Your task to perform on an android device: search for starred emails in the gmail app Image 0: 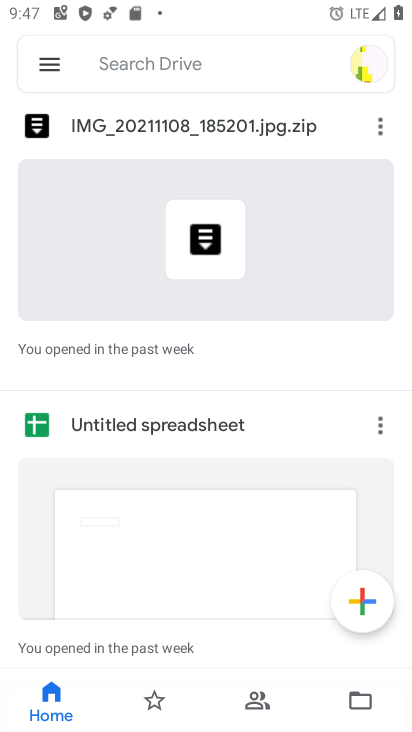
Step 0: press home button
Your task to perform on an android device: search for starred emails in the gmail app Image 1: 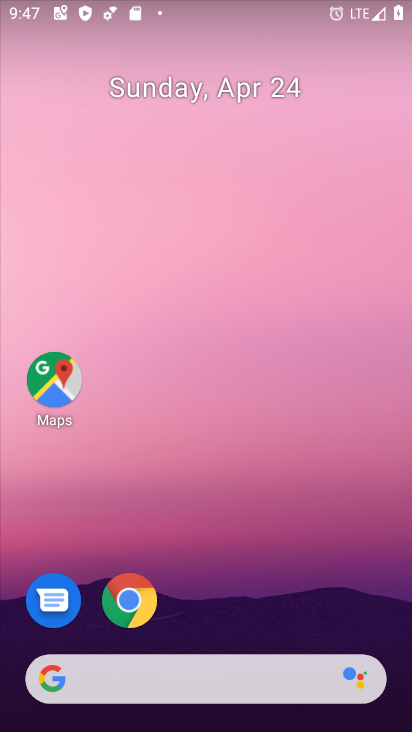
Step 1: drag from (209, 605) to (299, 48)
Your task to perform on an android device: search for starred emails in the gmail app Image 2: 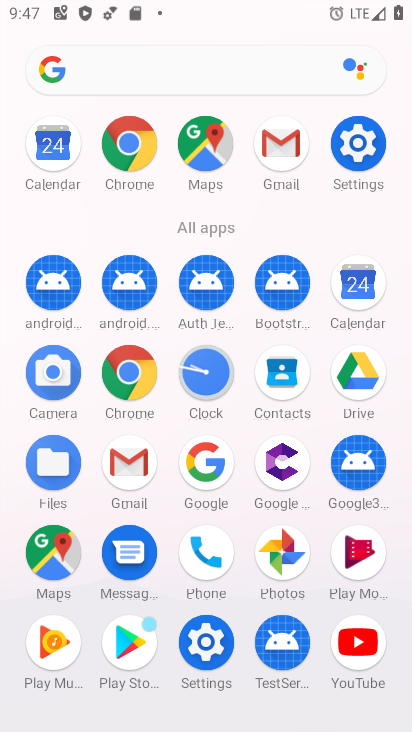
Step 2: click (125, 464)
Your task to perform on an android device: search for starred emails in the gmail app Image 3: 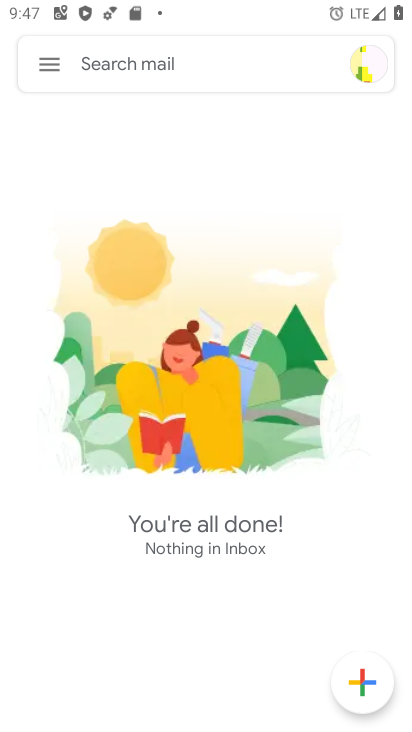
Step 3: click (34, 62)
Your task to perform on an android device: search for starred emails in the gmail app Image 4: 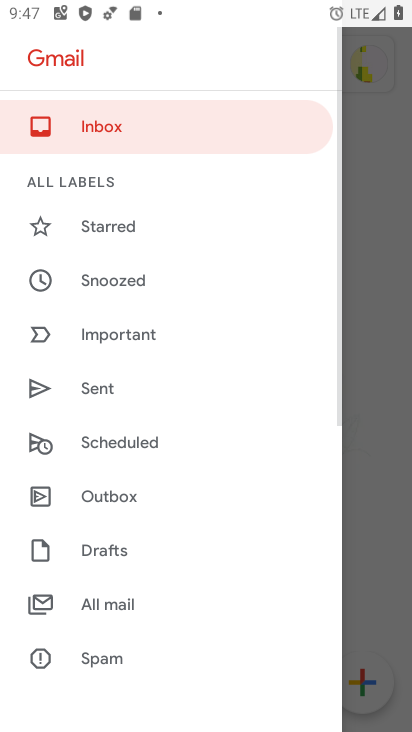
Step 4: click (121, 231)
Your task to perform on an android device: search for starred emails in the gmail app Image 5: 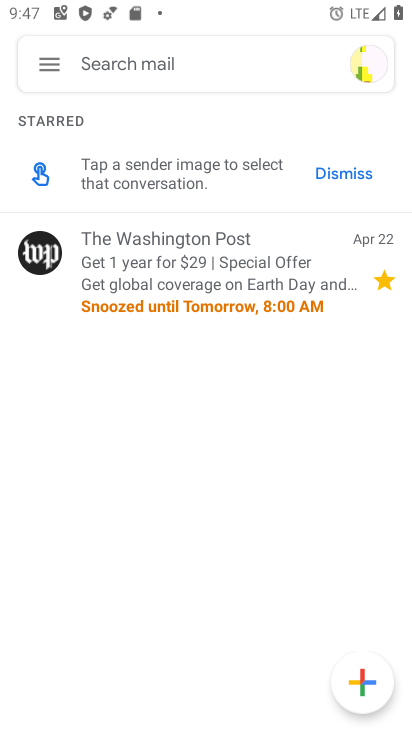
Step 5: click (34, 67)
Your task to perform on an android device: search for starred emails in the gmail app Image 6: 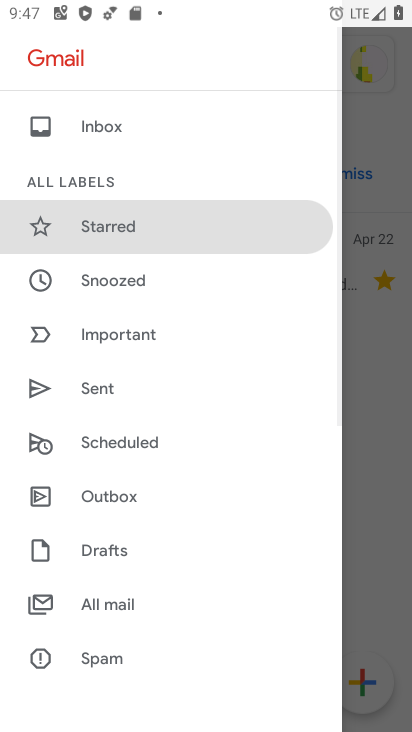
Step 6: click (173, 227)
Your task to perform on an android device: search for starred emails in the gmail app Image 7: 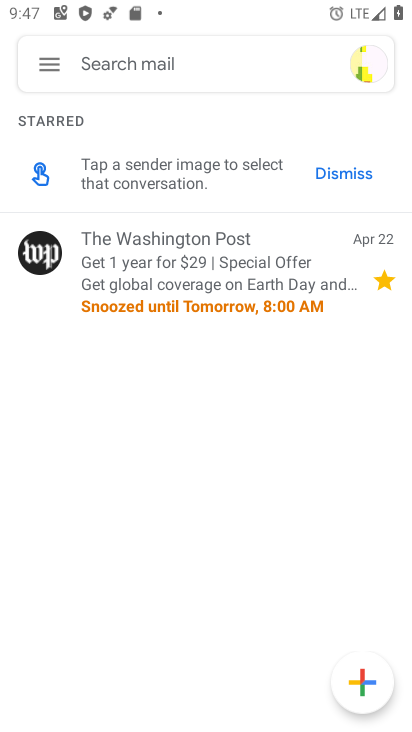
Step 7: task complete